Your task to perform on an android device: Open the phone app and click the voicemail tab. Image 0: 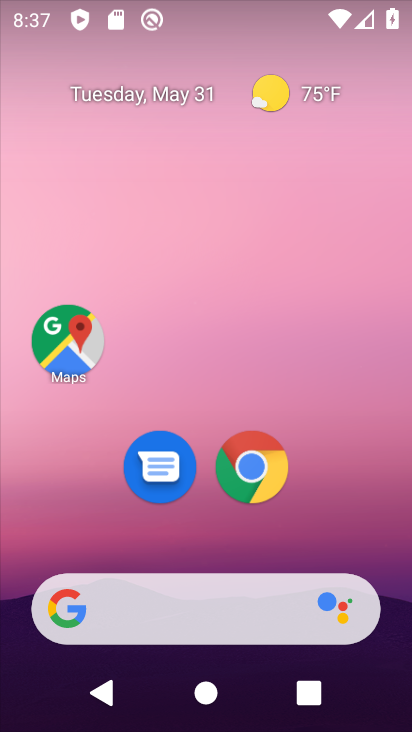
Step 0: drag from (208, 551) to (243, 164)
Your task to perform on an android device: Open the phone app and click the voicemail tab. Image 1: 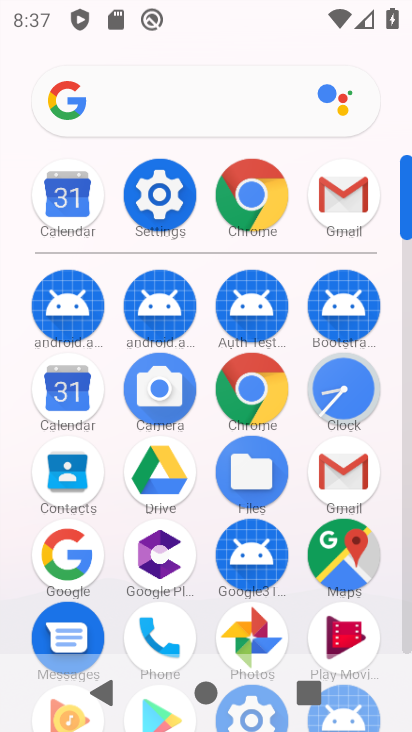
Step 1: click (157, 644)
Your task to perform on an android device: Open the phone app and click the voicemail tab. Image 2: 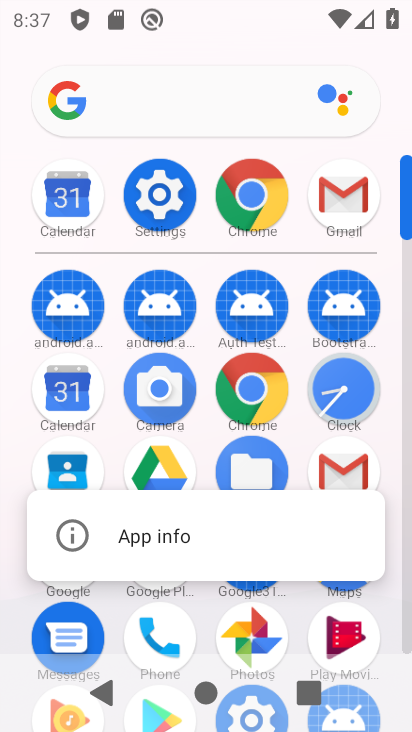
Step 2: click (143, 530)
Your task to perform on an android device: Open the phone app and click the voicemail tab. Image 3: 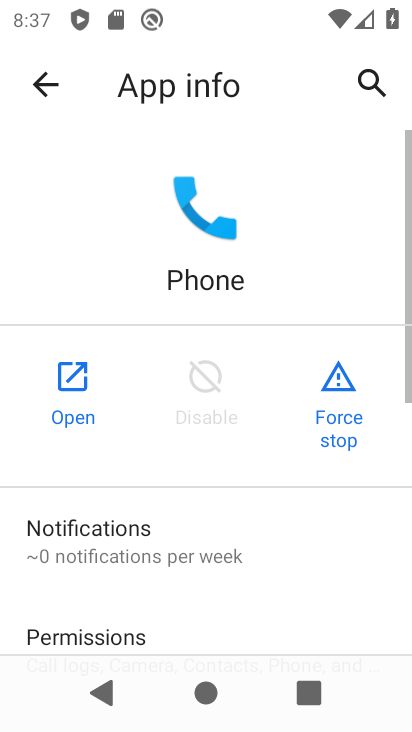
Step 3: click (69, 377)
Your task to perform on an android device: Open the phone app and click the voicemail tab. Image 4: 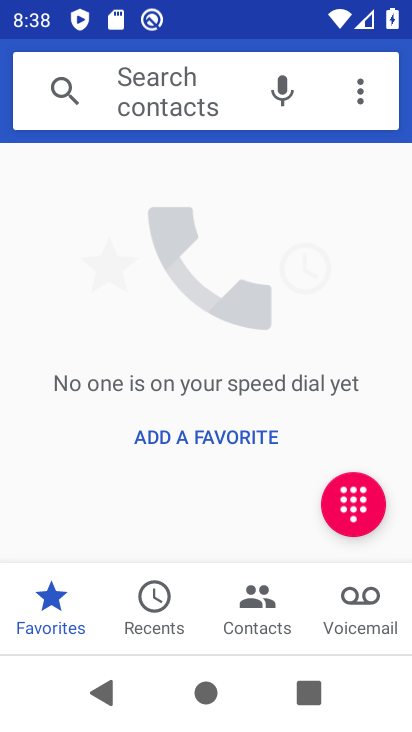
Step 4: drag from (211, 522) to (223, 324)
Your task to perform on an android device: Open the phone app and click the voicemail tab. Image 5: 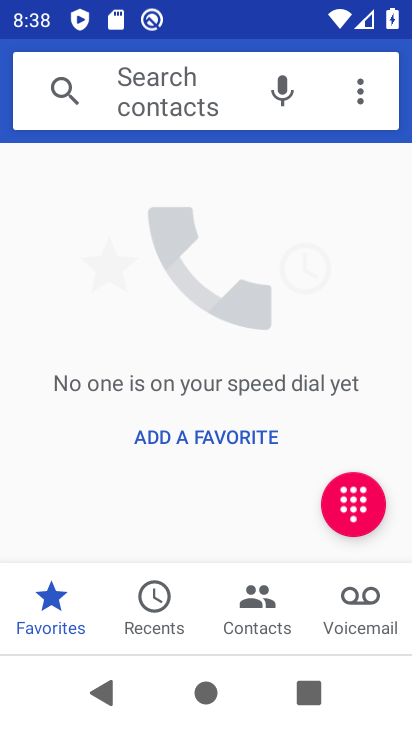
Step 5: click (338, 603)
Your task to perform on an android device: Open the phone app and click the voicemail tab. Image 6: 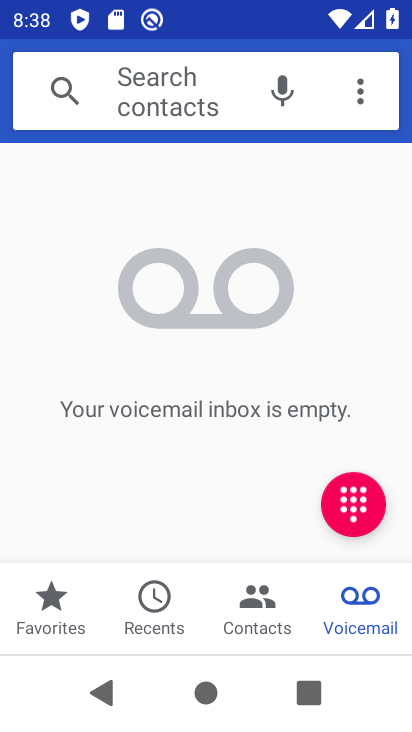
Step 6: task complete